Your task to perform on an android device: turn notification dots on Image 0: 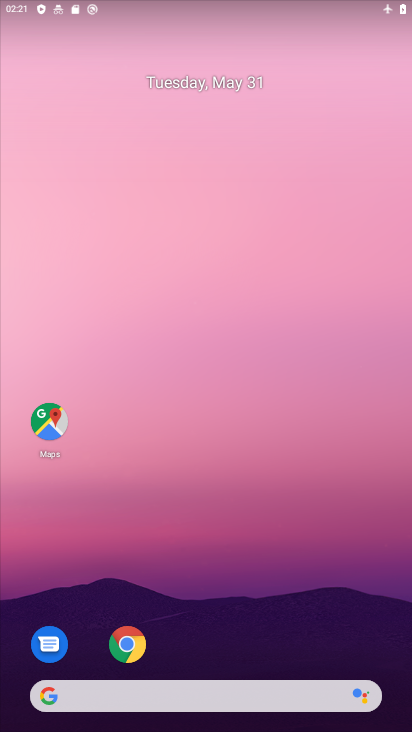
Step 0: drag from (261, 595) to (246, 156)
Your task to perform on an android device: turn notification dots on Image 1: 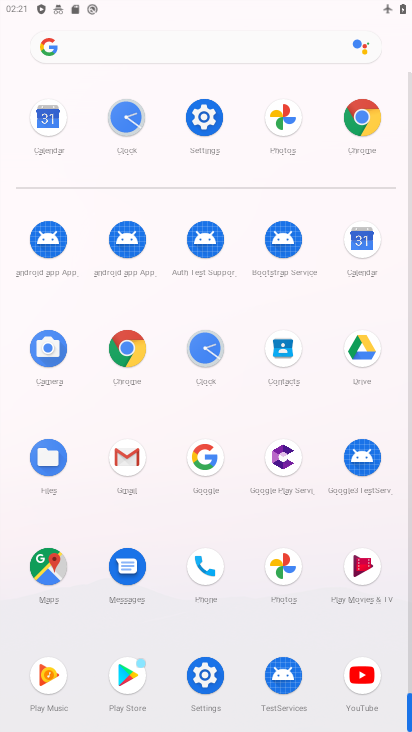
Step 1: click (214, 117)
Your task to perform on an android device: turn notification dots on Image 2: 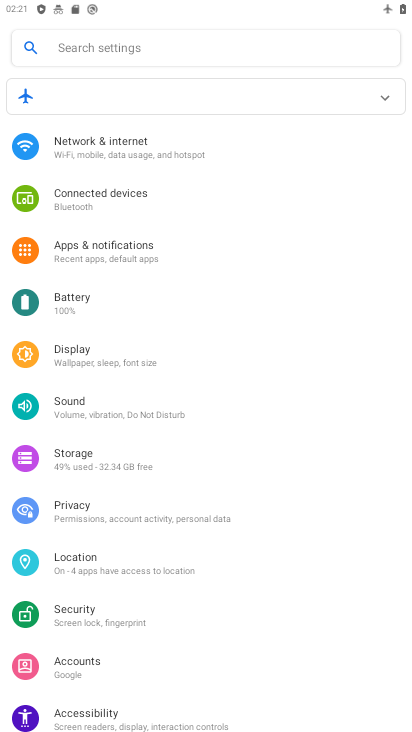
Step 2: click (118, 252)
Your task to perform on an android device: turn notification dots on Image 3: 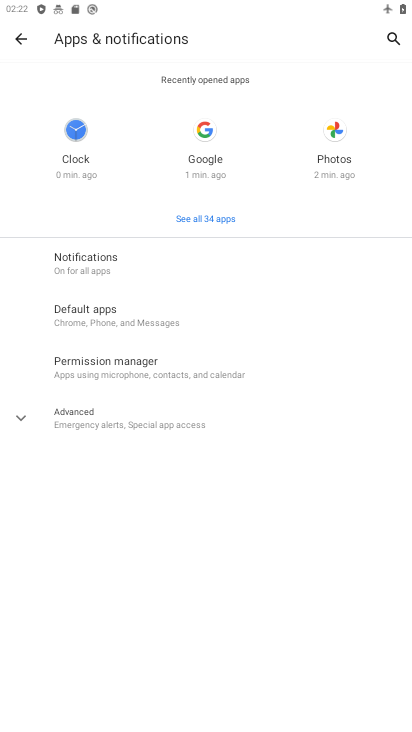
Step 3: click (103, 262)
Your task to perform on an android device: turn notification dots on Image 4: 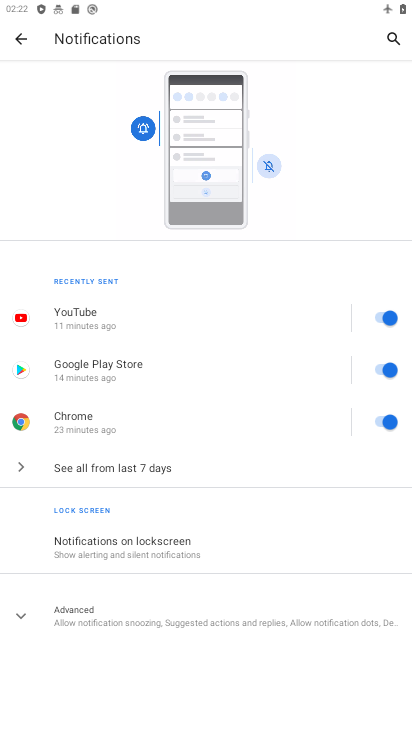
Step 4: click (110, 611)
Your task to perform on an android device: turn notification dots on Image 5: 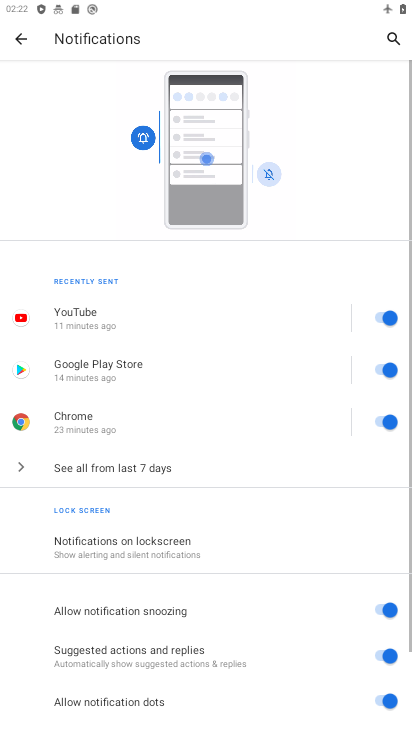
Step 5: task complete